Your task to perform on an android device: Go to location settings Image 0: 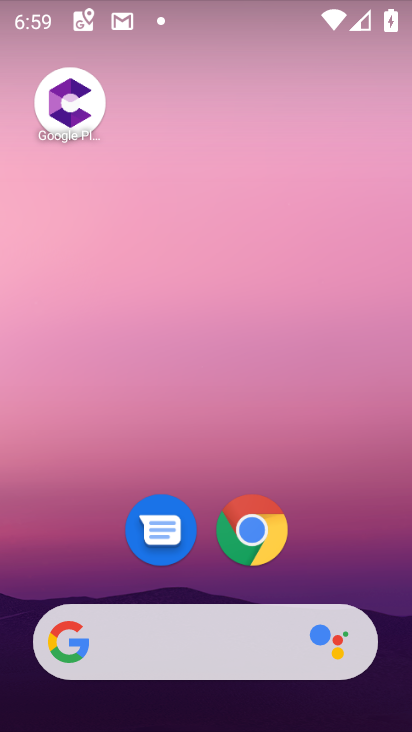
Step 0: drag from (260, 702) to (289, 102)
Your task to perform on an android device: Go to location settings Image 1: 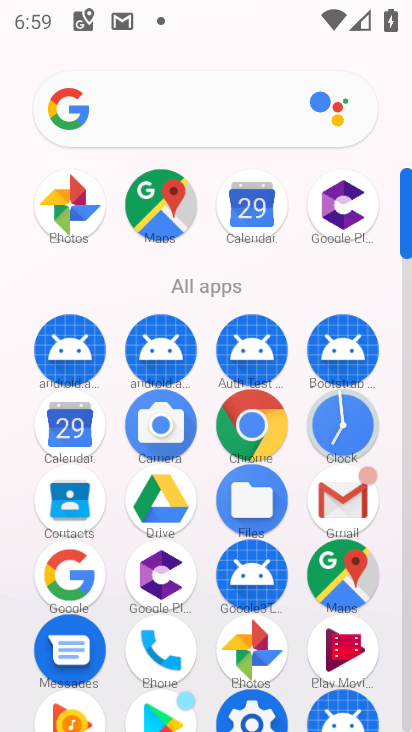
Step 1: click (258, 707)
Your task to perform on an android device: Go to location settings Image 2: 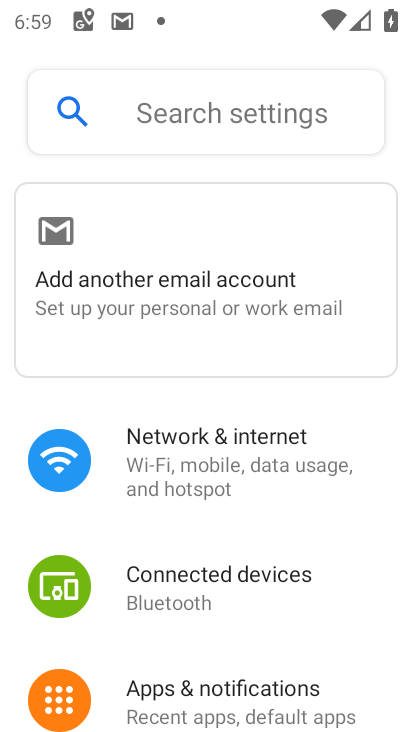
Step 2: click (193, 119)
Your task to perform on an android device: Go to location settings Image 3: 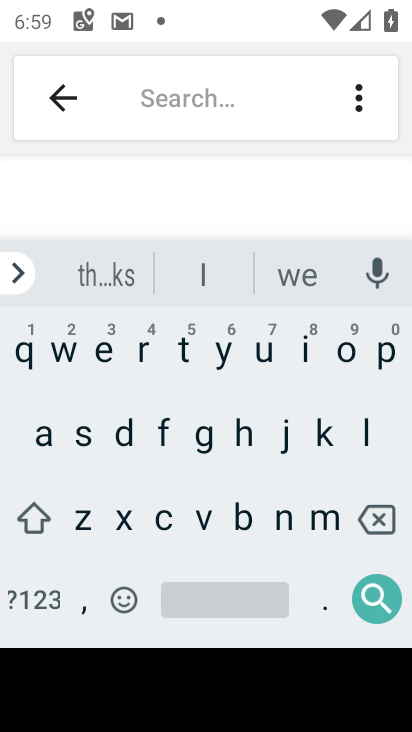
Step 3: click (359, 440)
Your task to perform on an android device: Go to location settings Image 4: 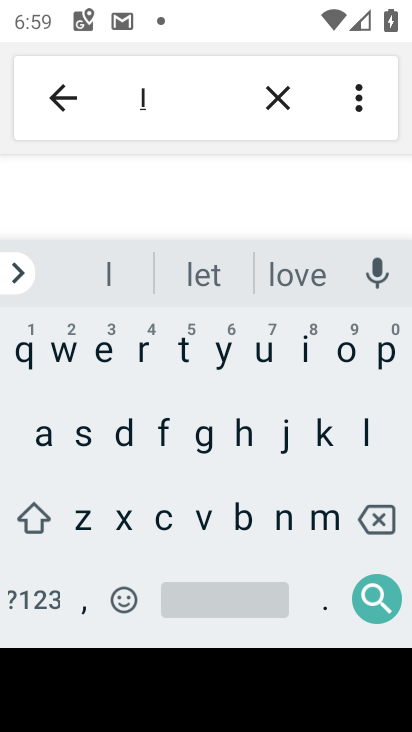
Step 4: click (331, 352)
Your task to perform on an android device: Go to location settings Image 5: 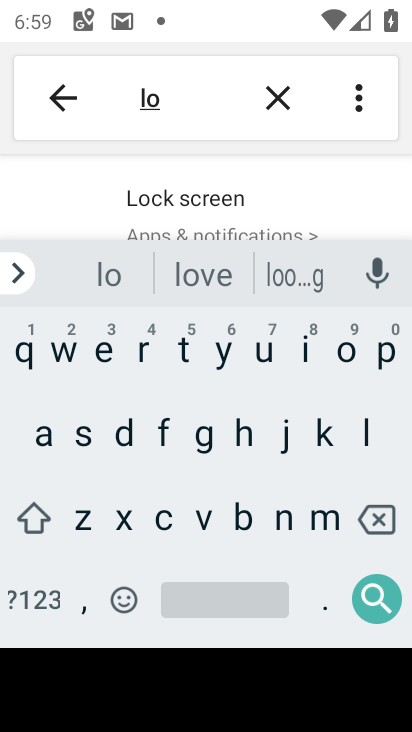
Step 5: drag from (168, 196) to (148, 83)
Your task to perform on an android device: Go to location settings Image 6: 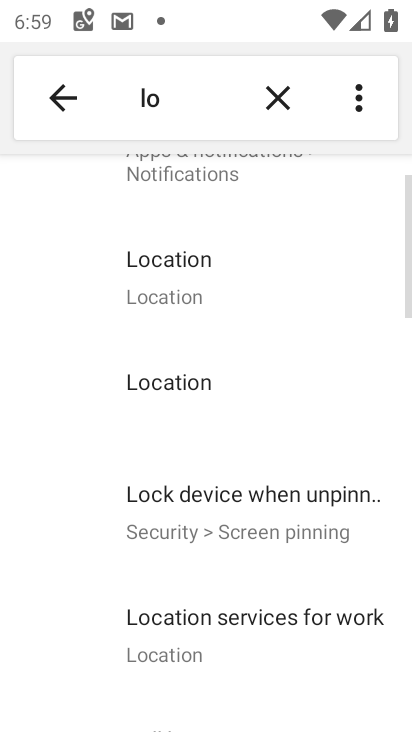
Step 6: click (194, 283)
Your task to perform on an android device: Go to location settings Image 7: 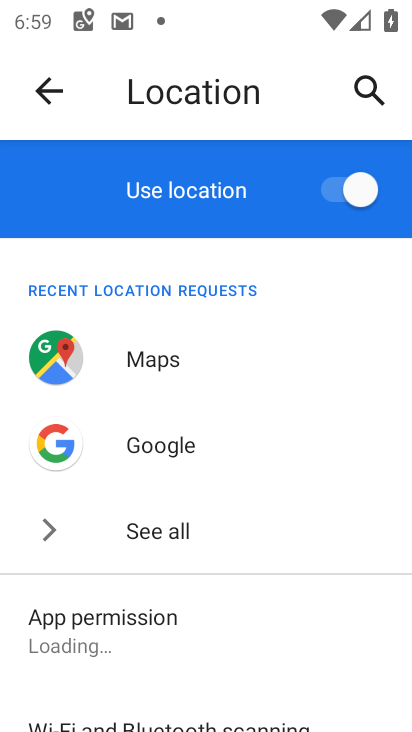
Step 7: click (356, 204)
Your task to perform on an android device: Go to location settings Image 8: 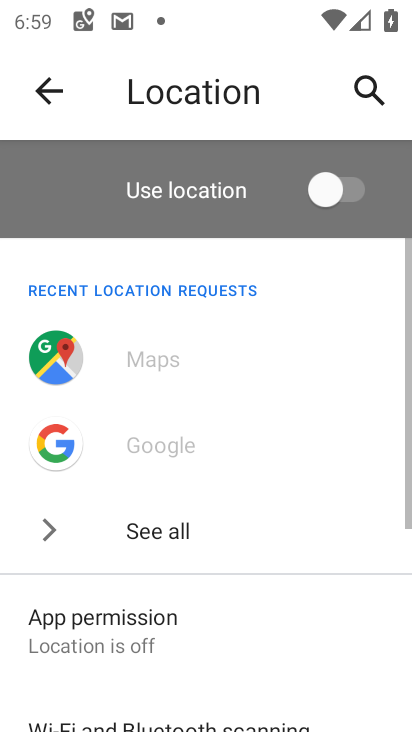
Step 8: click (345, 203)
Your task to perform on an android device: Go to location settings Image 9: 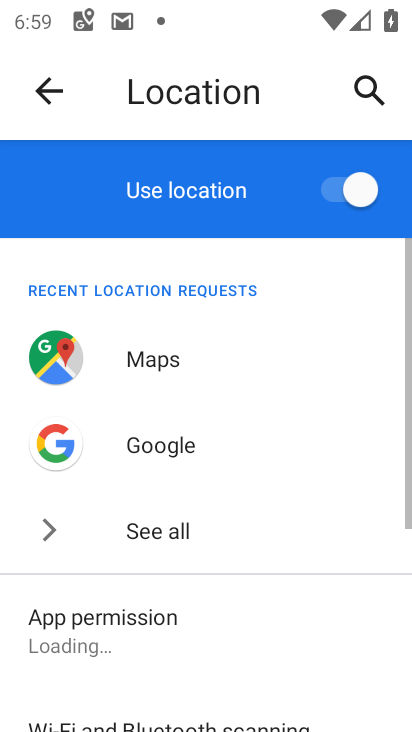
Step 9: task complete